Your task to perform on an android device: Set the phone to "Do not disturb". Image 0: 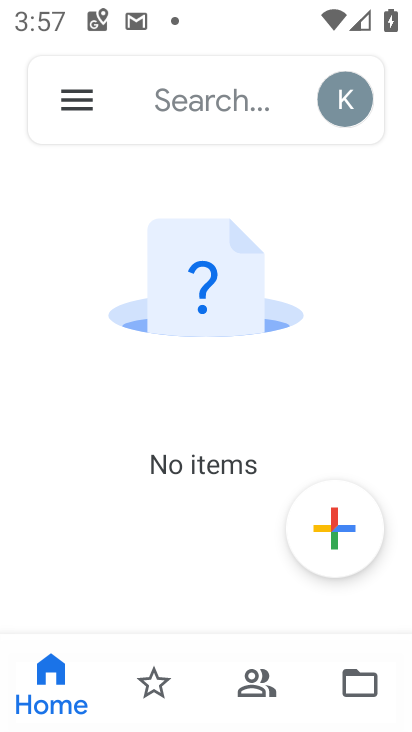
Step 0: press home button
Your task to perform on an android device: Set the phone to "Do not disturb". Image 1: 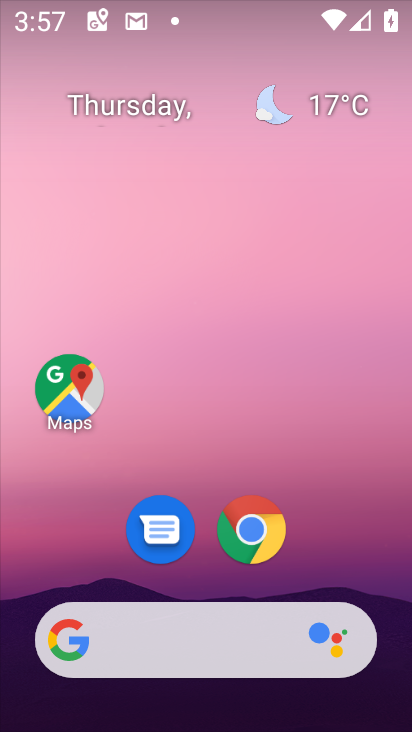
Step 1: task complete